Your task to perform on an android device: Open ESPN.com Image 0: 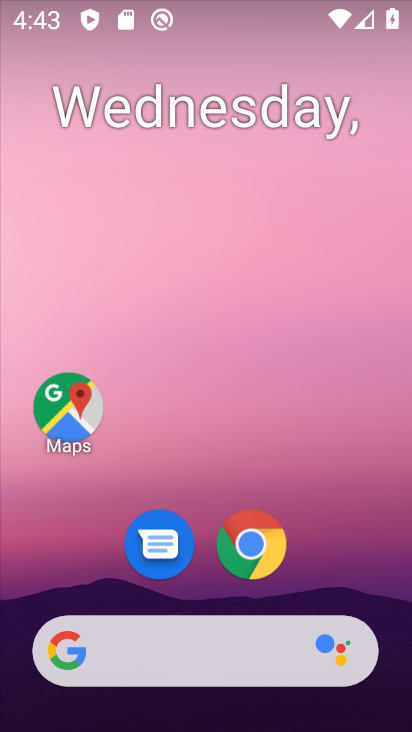
Step 0: click (266, 543)
Your task to perform on an android device: Open ESPN.com Image 1: 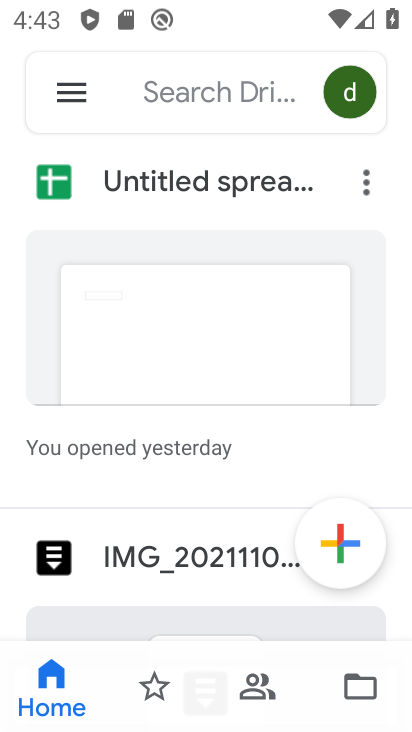
Step 1: press home button
Your task to perform on an android device: Open ESPN.com Image 2: 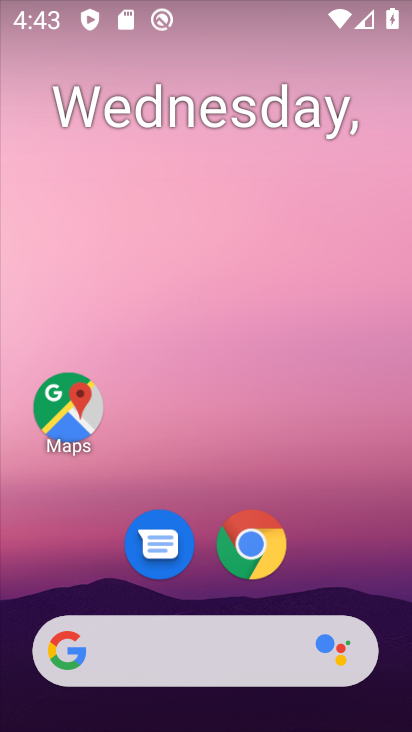
Step 2: drag from (392, 676) to (316, 106)
Your task to perform on an android device: Open ESPN.com Image 3: 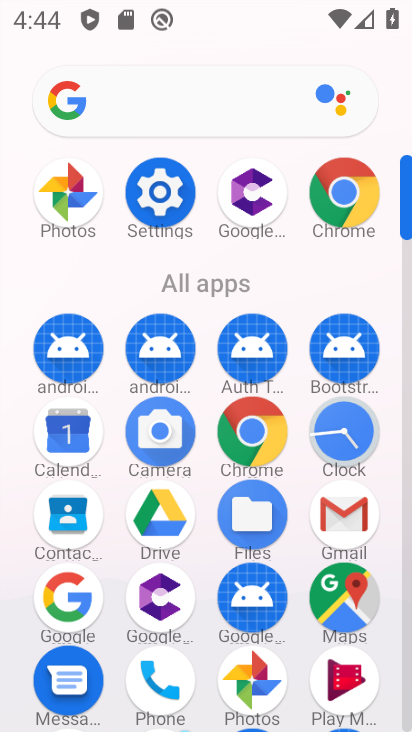
Step 3: click (160, 204)
Your task to perform on an android device: Open ESPN.com Image 4: 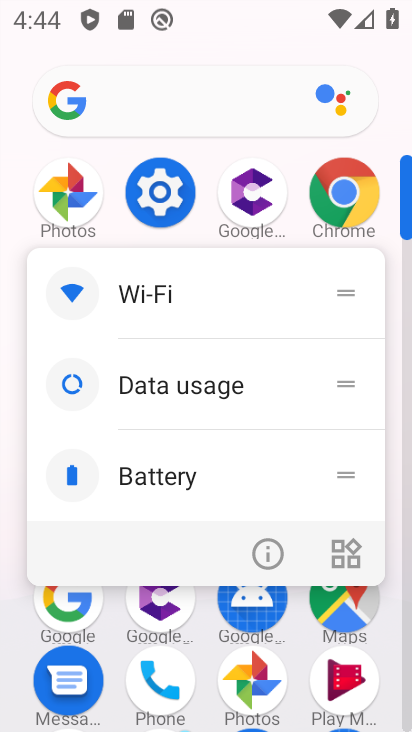
Step 4: click (157, 190)
Your task to perform on an android device: Open ESPN.com Image 5: 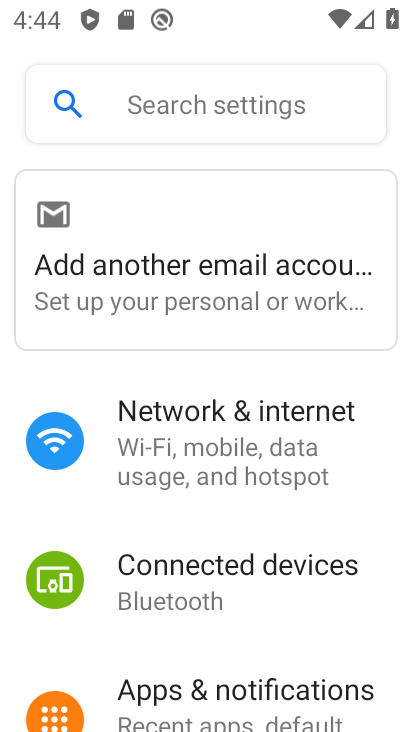
Step 5: press home button
Your task to perform on an android device: Open ESPN.com Image 6: 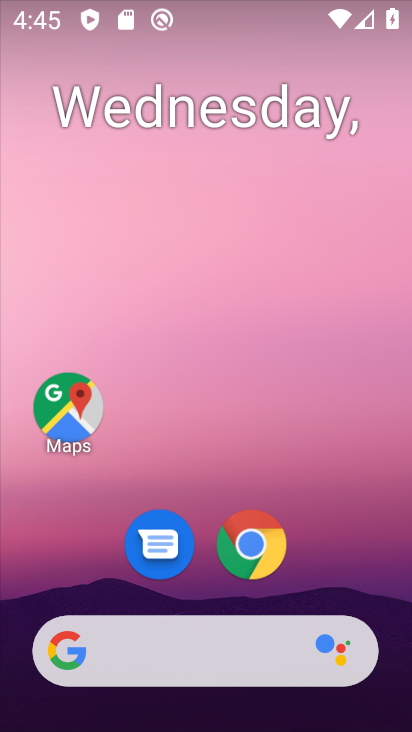
Step 6: click (248, 541)
Your task to perform on an android device: Open ESPN.com Image 7: 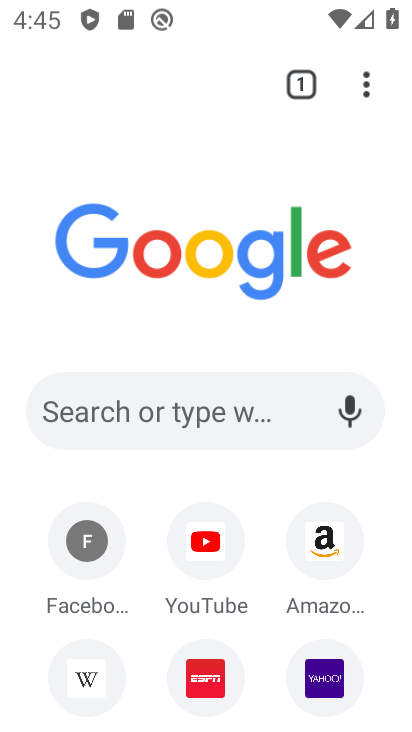
Step 7: click (136, 431)
Your task to perform on an android device: Open ESPN.com Image 8: 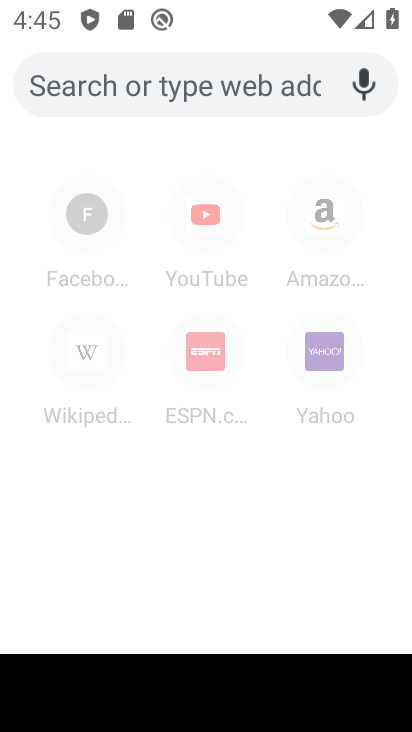
Step 8: click (102, 82)
Your task to perform on an android device: Open ESPN.com Image 9: 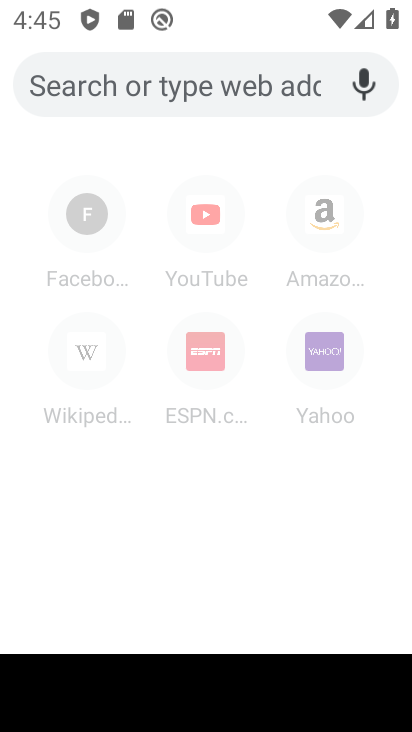
Step 9: type "ESPN.com"
Your task to perform on an android device: Open ESPN.com Image 10: 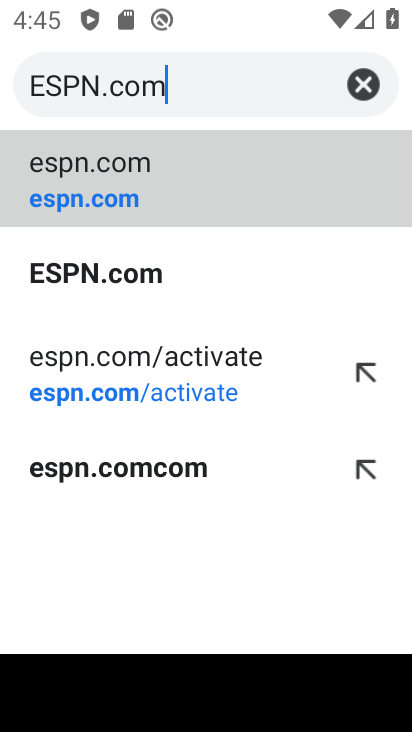
Step 10: click (61, 274)
Your task to perform on an android device: Open ESPN.com Image 11: 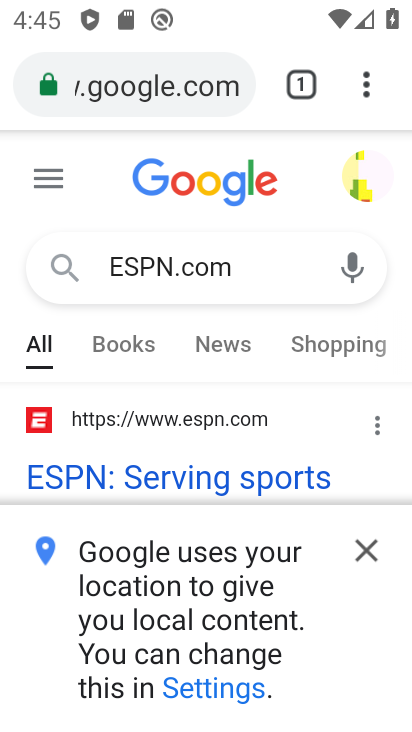
Step 11: task complete